Your task to perform on an android device: What's on my calendar tomorrow? Image 0: 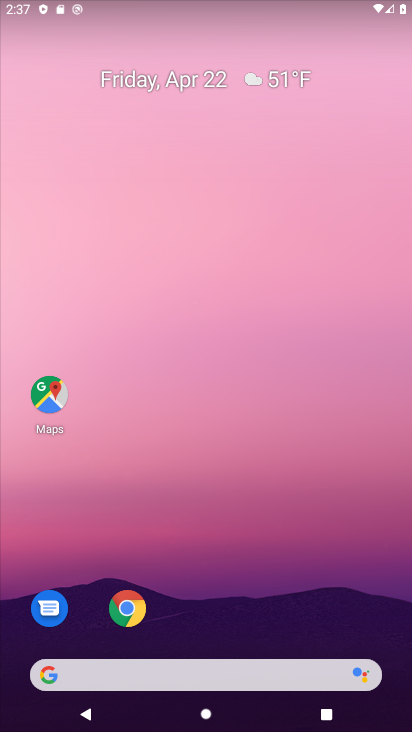
Step 0: drag from (263, 586) to (273, 91)
Your task to perform on an android device: What's on my calendar tomorrow? Image 1: 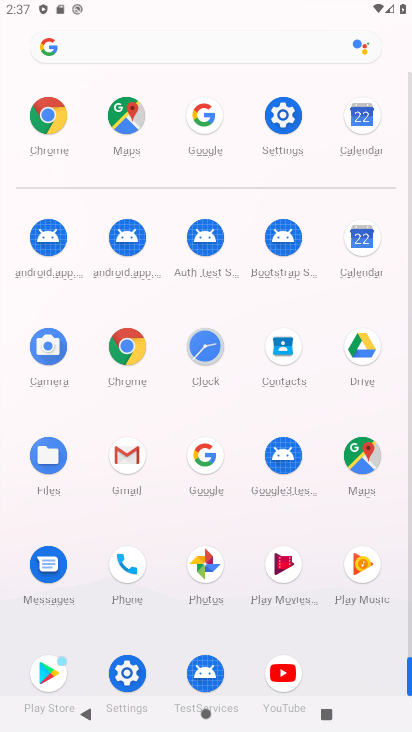
Step 1: click (365, 110)
Your task to perform on an android device: What's on my calendar tomorrow? Image 2: 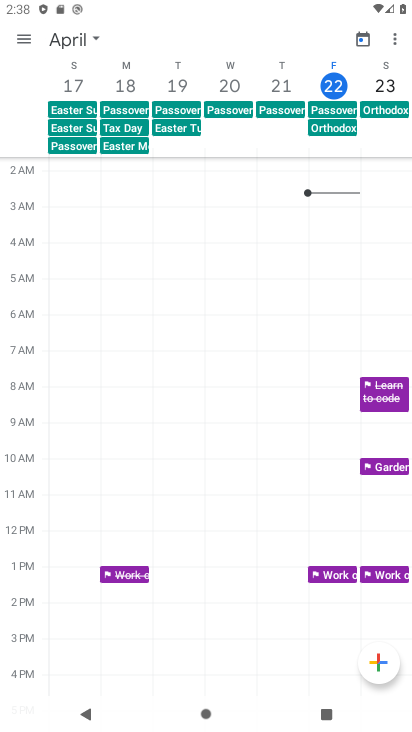
Step 2: click (29, 38)
Your task to perform on an android device: What's on my calendar tomorrow? Image 3: 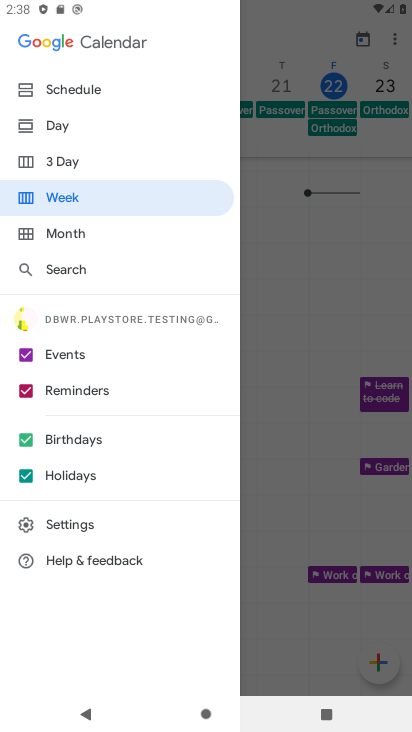
Step 3: click (81, 88)
Your task to perform on an android device: What's on my calendar tomorrow? Image 4: 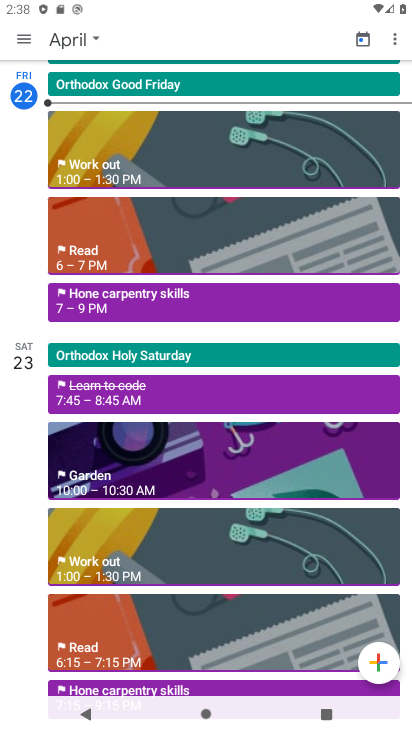
Step 4: task complete